Your task to perform on an android device: open a new tab in the chrome app Image 0: 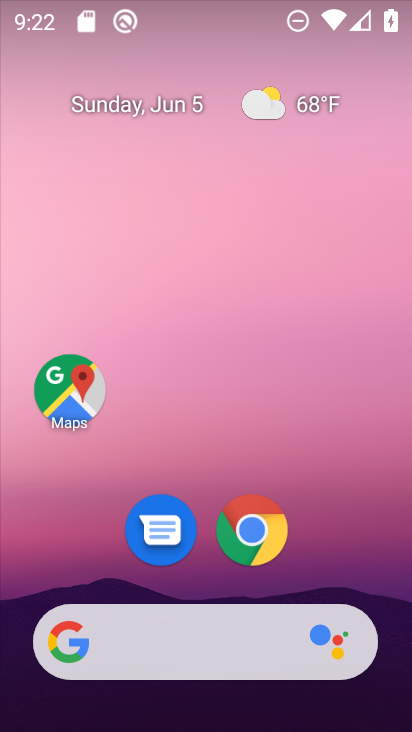
Step 0: click (255, 536)
Your task to perform on an android device: open a new tab in the chrome app Image 1: 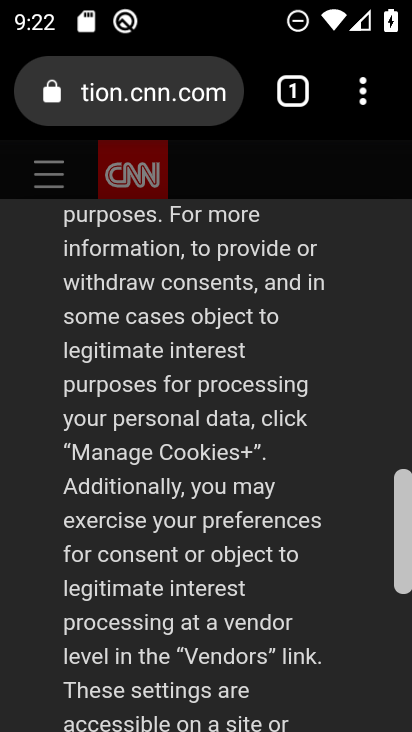
Step 1: click (360, 105)
Your task to perform on an android device: open a new tab in the chrome app Image 2: 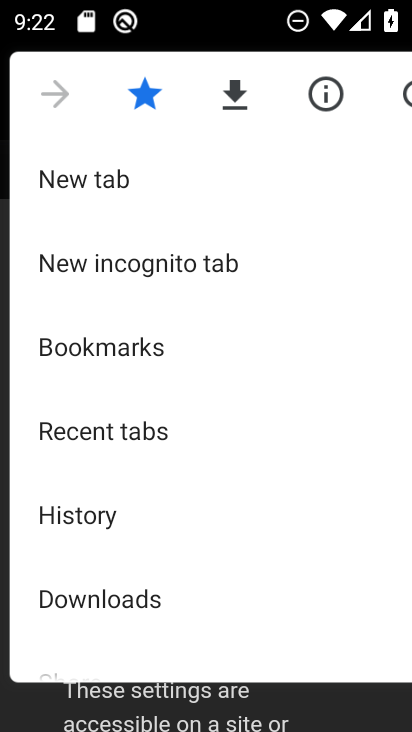
Step 2: click (79, 179)
Your task to perform on an android device: open a new tab in the chrome app Image 3: 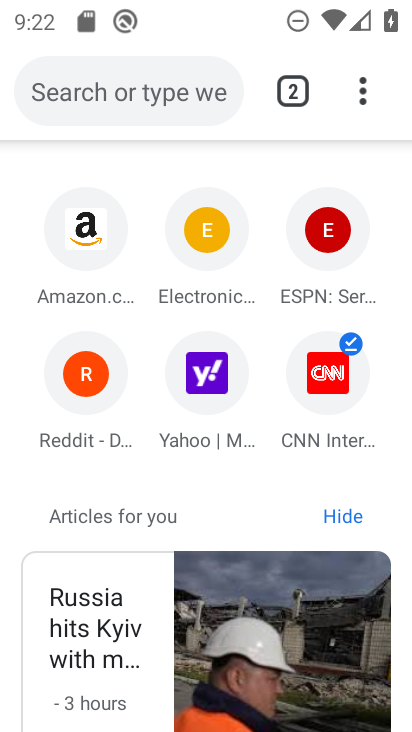
Step 3: task complete